Your task to perform on an android device: What's the weather? Image 0: 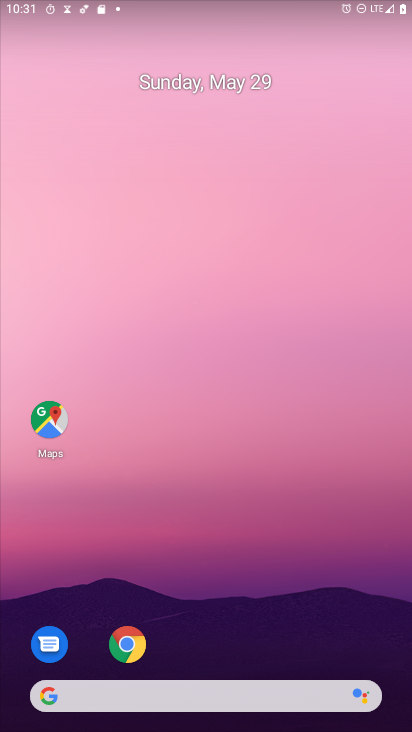
Step 0: click (156, 684)
Your task to perform on an android device: What's the weather? Image 1: 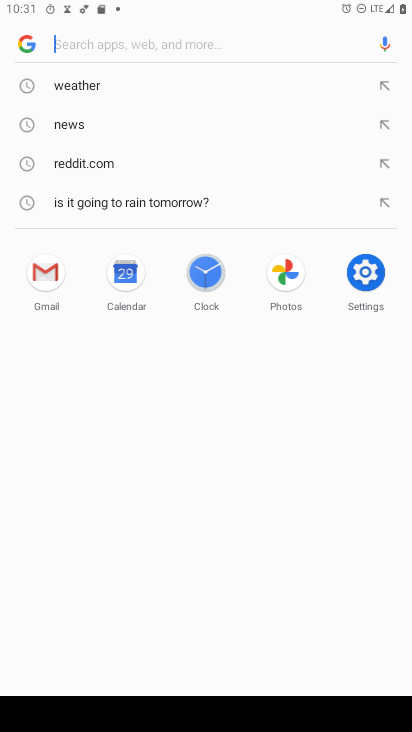
Step 1: click (117, 93)
Your task to perform on an android device: What's the weather? Image 2: 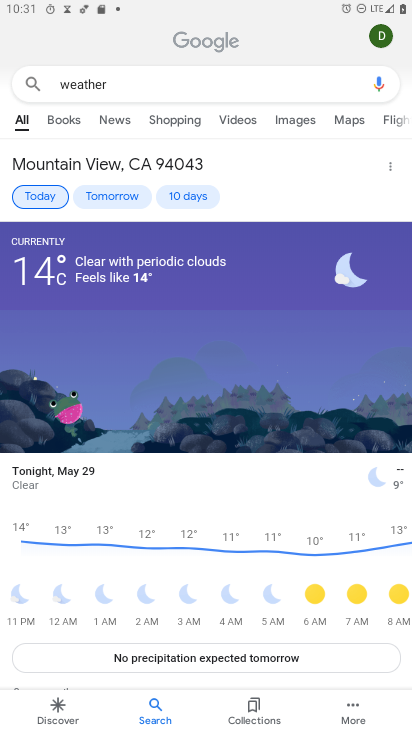
Step 2: task complete